Your task to perform on an android device: search for starred emails in the gmail app Image 0: 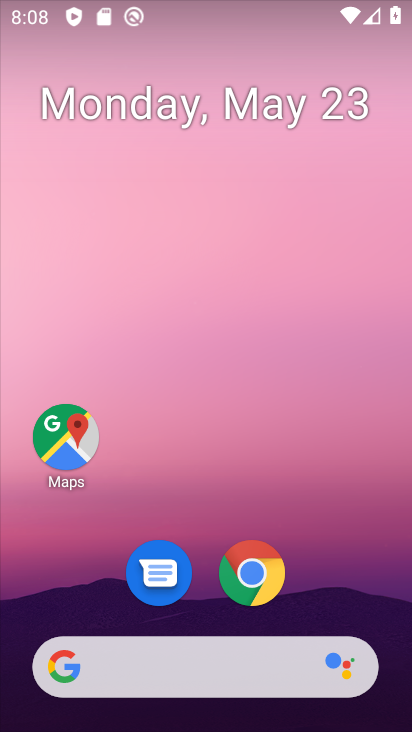
Step 0: press home button
Your task to perform on an android device: search for starred emails in the gmail app Image 1: 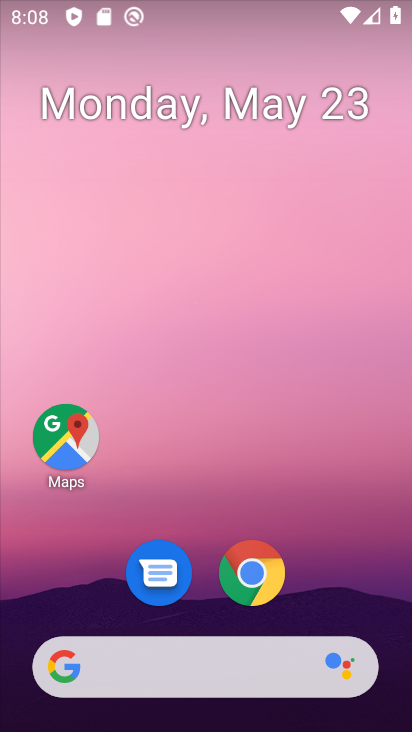
Step 1: drag from (207, 612) to (272, 106)
Your task to perform on an android device: search for starred emails in the gmail app Image 2: 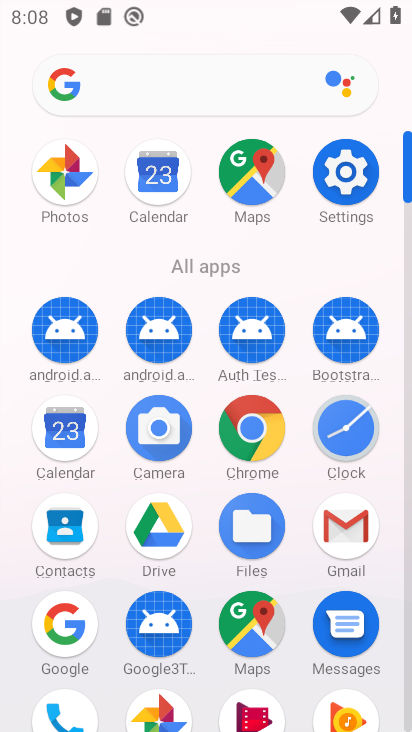
Step 2: click (343, 516)
Your task to perform on an android device: search for starred emails in the gmail app Image 3: 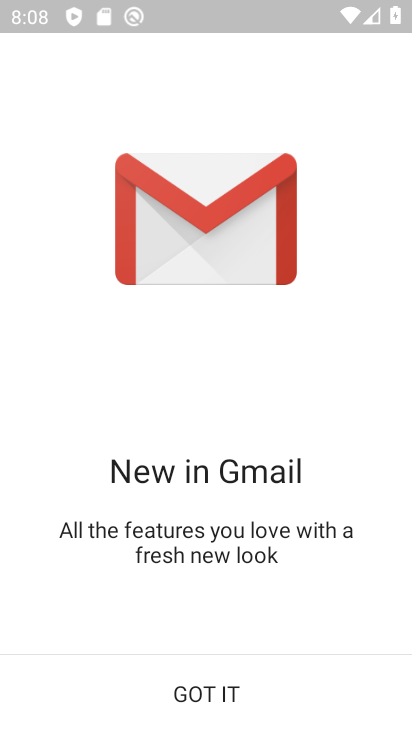
Step 3: click (216, 708)
Your task to perform on an android device: search for starred emails in the gmail app Image 4: 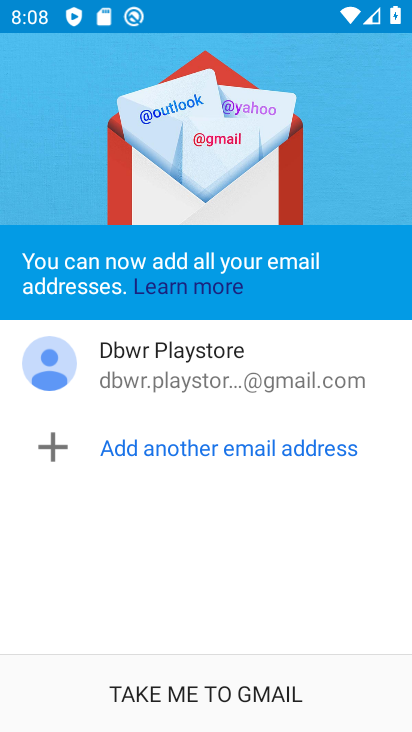
Step 4: click (216, 708)
Your task to perform on an android device: search for starred emails in the gmail app Image 5: 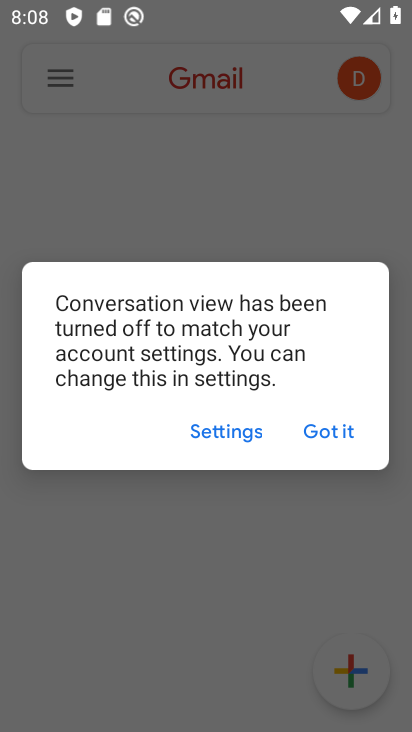
Step 5: click (322, 436)
Your task to perform on an android device: search for starred emails in the gmail app Image 6: 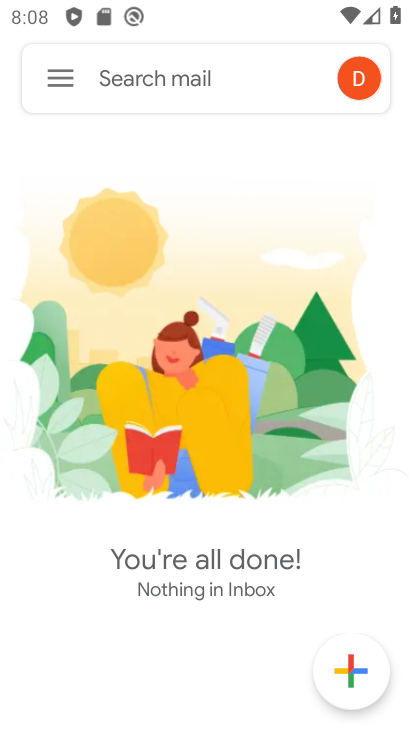
Step 6: click (46, 72)
Your task to perform on an android device: search for starred emails in the gmail app Image 7: 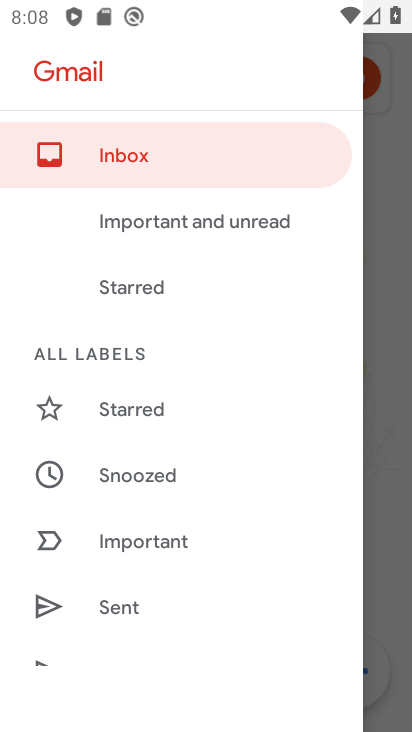
Step 7: click (154, 281)
Your task to perform on an android device: search for starred emails in the gmail app Image 8: 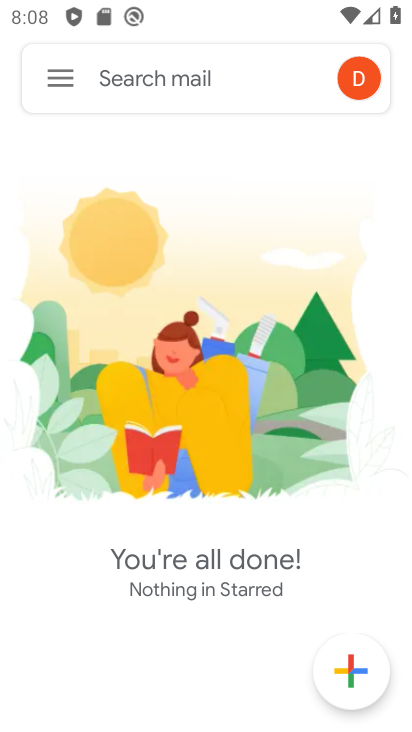
Step 8: task complete